Your task to perform on an android device: turn pop-ups on in chrome Image 0: 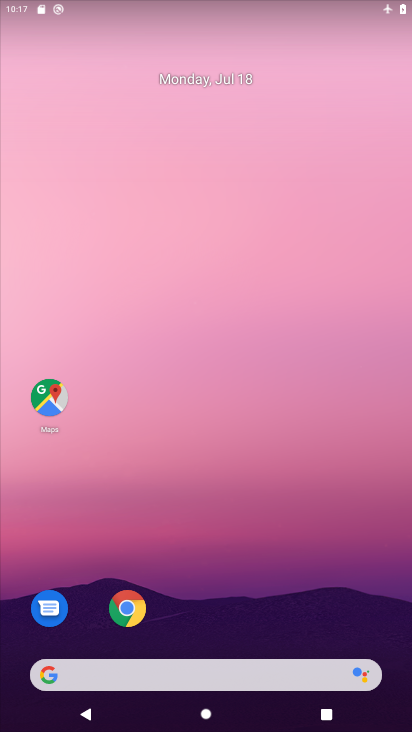
Step 0: drag from (187, 648) to (188, 22)
Your task to perform on an android device: turn pop-ups on in chrome Image 1: 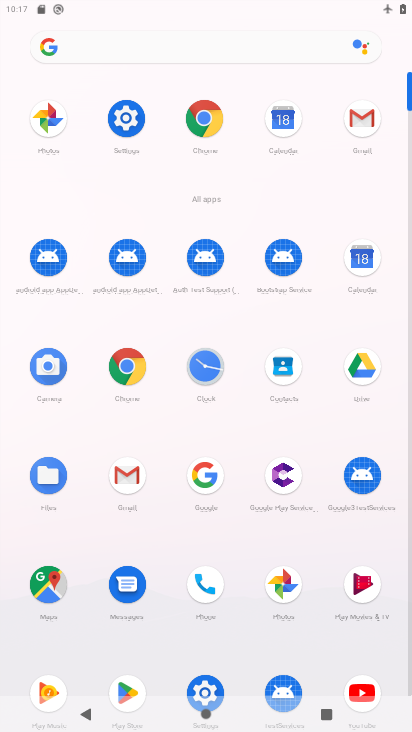
Step 1: click (213, 121)
Your task to perform on an android device: turn pop-ups on in chrome Image 2: 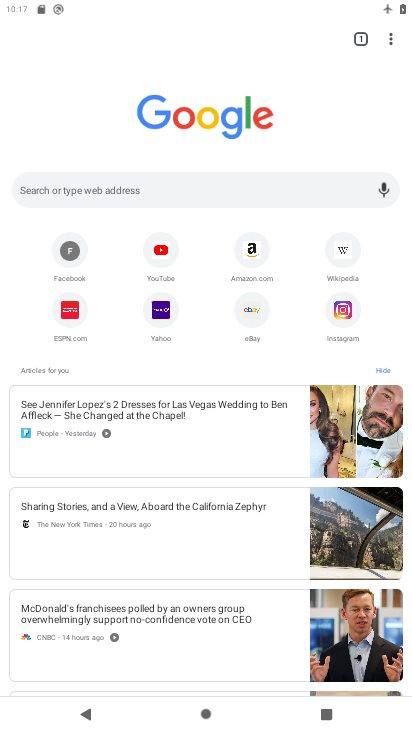
Step 2: click (391, 48)
Your task to perform on an android device: turn pop-ups on in chrome Image 3: 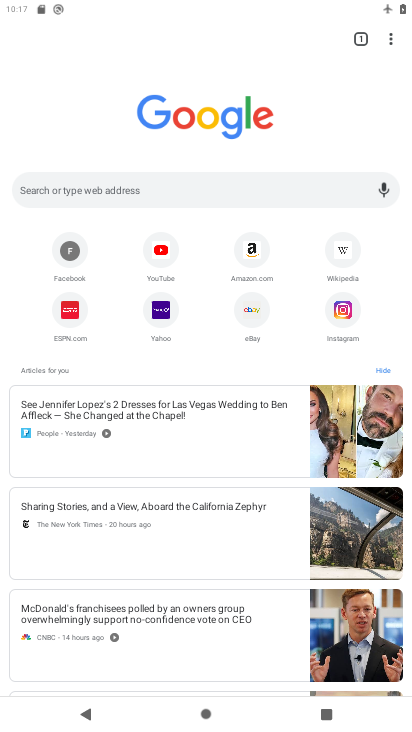
Step 3: click (385, 39)
Your task to perform on an android device: turn pop-ups on in chrome Image 4: 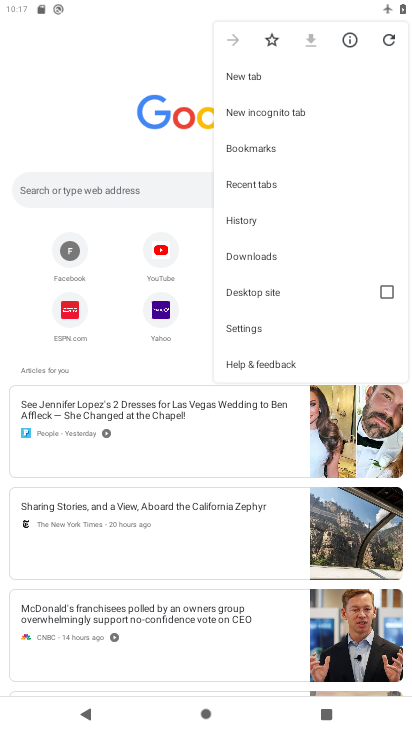
Step 4: click (243, 325)
Your task to perform on an android device: turn pop-ups on in chrome Image 5: 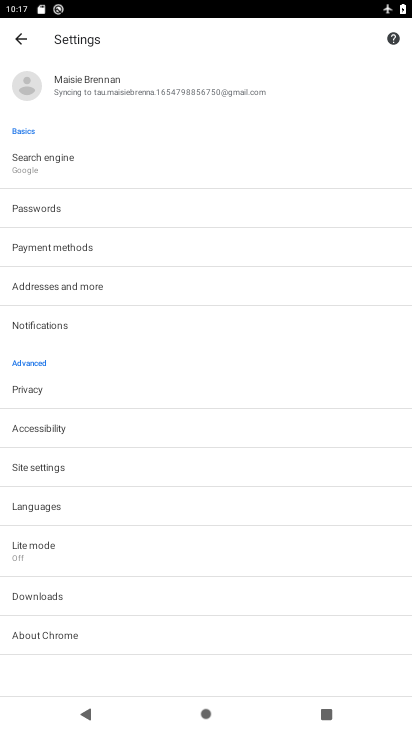
Step 5: click (46, 458)
Your task to perform on an android device: turn pop-ups on in chrome Image 6: 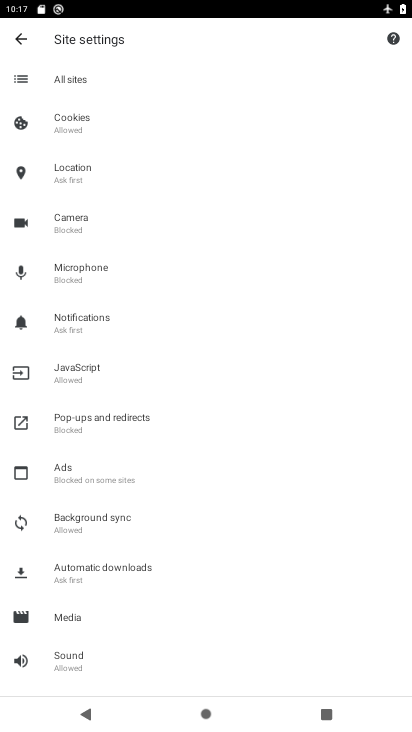
Step 6: click (82, 423)
Your task to perform on an android device: turn pop-ups on in chrome Image 7: 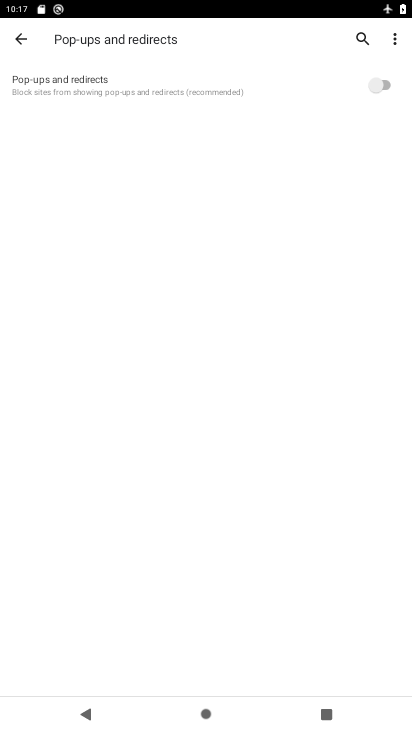
Step 7: click (373, 88)
Your task to perform on an android device: turn pop-ups on in chrome Image 8: 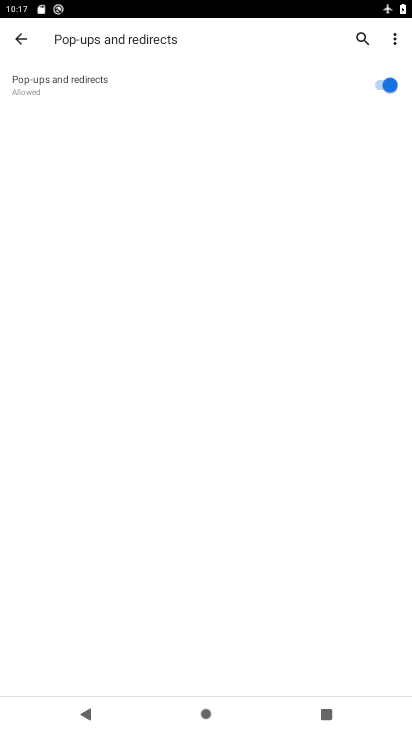
Step 8: task complete